Your task to perform on an android device: move an email to a new category in the gmail app Image 0: 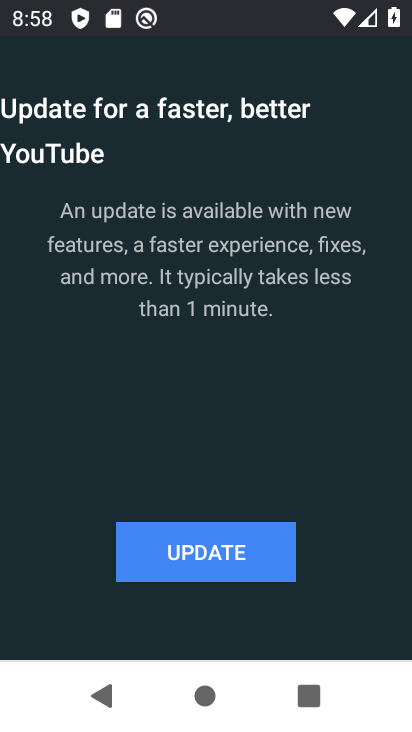
Step 0: press home button
Your task to perform on an android device: move an email to a new category in the gmail app Image 1: 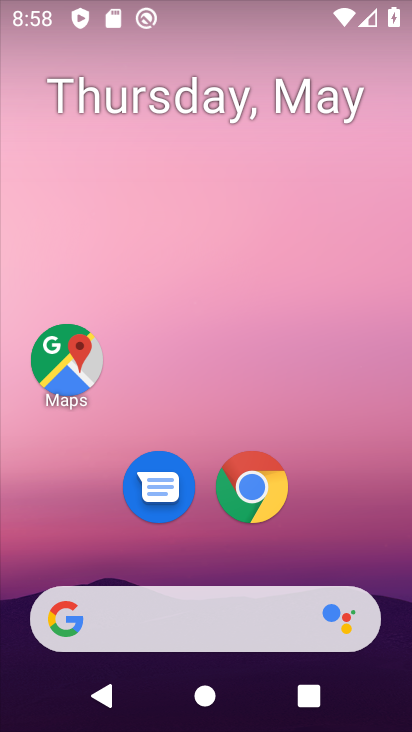
Step 1: drag from (235, 556) to (266, 79)
Your task to perform on an android device: move an email to a new category in the gmail app Image 2: 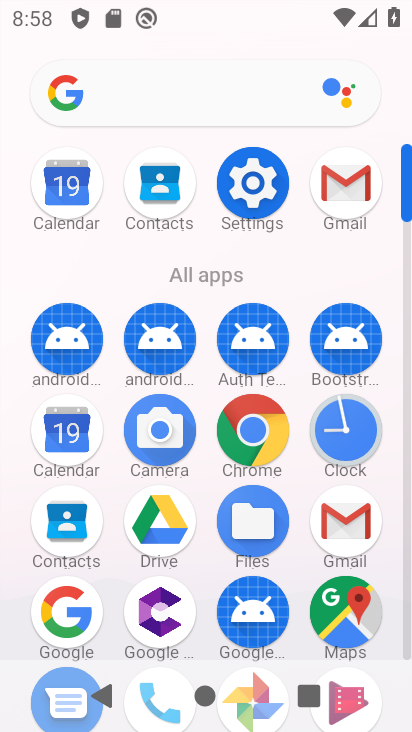
Step 2: click (346, 196)
Your task to perform on an android device: move an email to a new category in the gmail app Image 3: 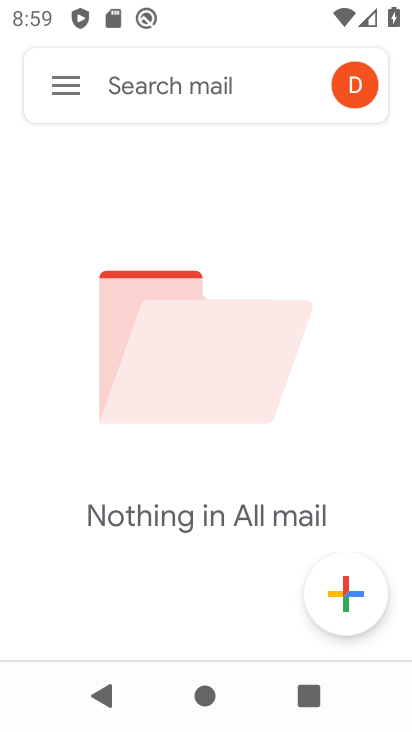
Step 3: task complete